Your task to perform on an android device: change notification settings in the gmail app Image 0: 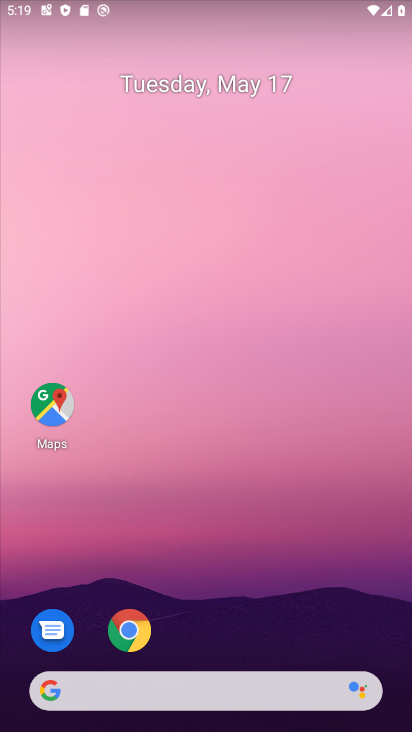
Step 0: drag from (256, 595) to (262, 39)
Your task to perform on an android device: change notification settings in the gmail app Image 1: 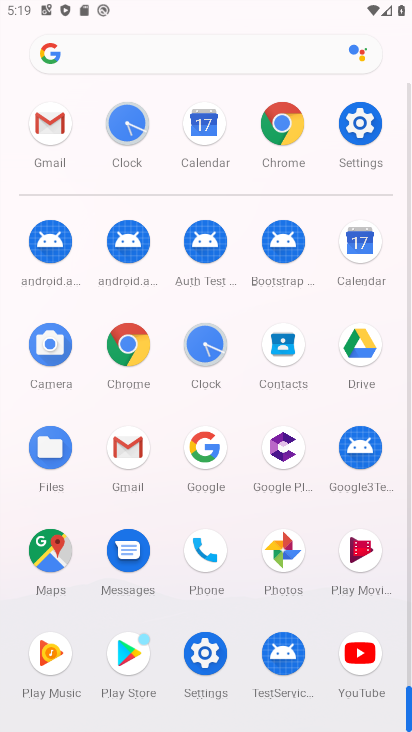
Step 1: click (44, 122)
Your task to perform on an android device: change notification settings in the gmail app Image 2: 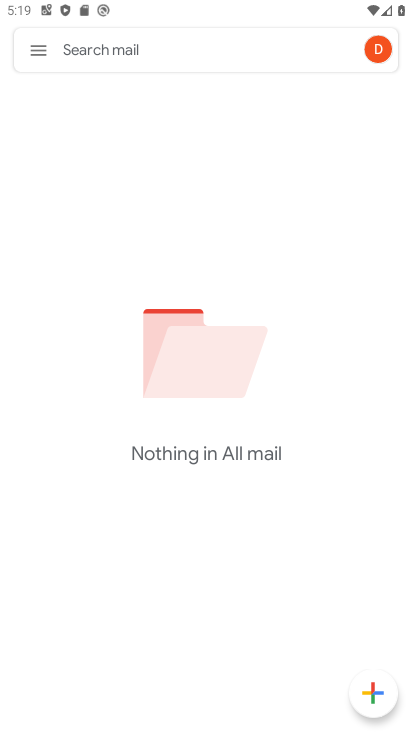
Step 2: click (49, 46)
Your task to perform on an android device: change notification settings in the gmail app Image 3: 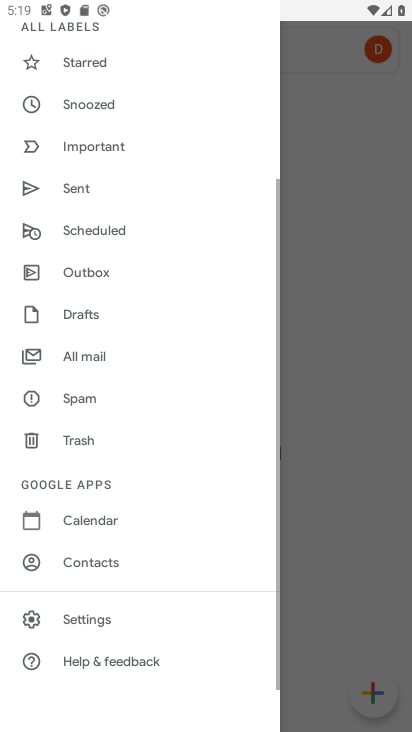
Step 3: click (116, 638)
Your task to perform on an android device: change notification settings in the gmail app Image 4: 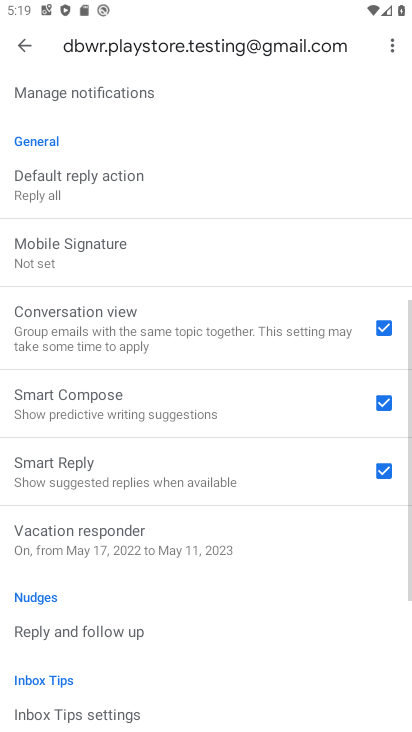
Step 4: drag from (129, 621) to (187, 675)
Your task to perform on an android device: change notification settings in the gmail app Image 5: 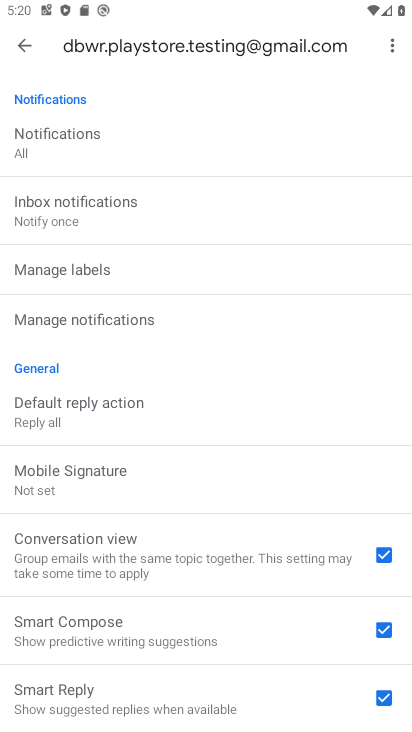
Step 5: click (101, 321)
Your task to perform on an android device: change notification settings in the gmail app Image 6: 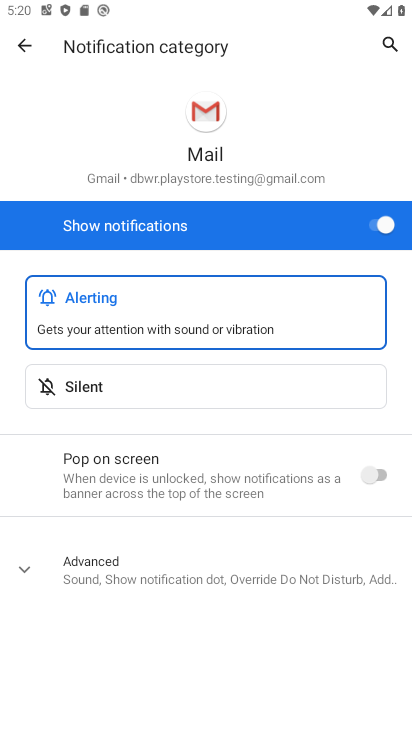
Step 6: click (373, 225)
Your task to perform on an android device: change notification settings in the gmail app Image 7: 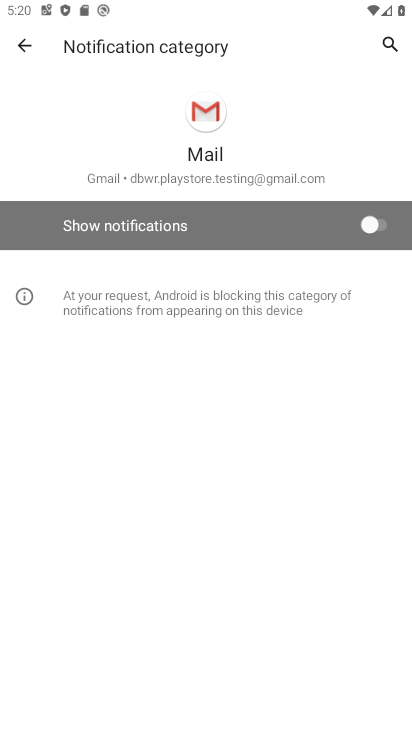
Step 7: task complete